Your task to perform on an android device: star an email in the gmail app Image 0: 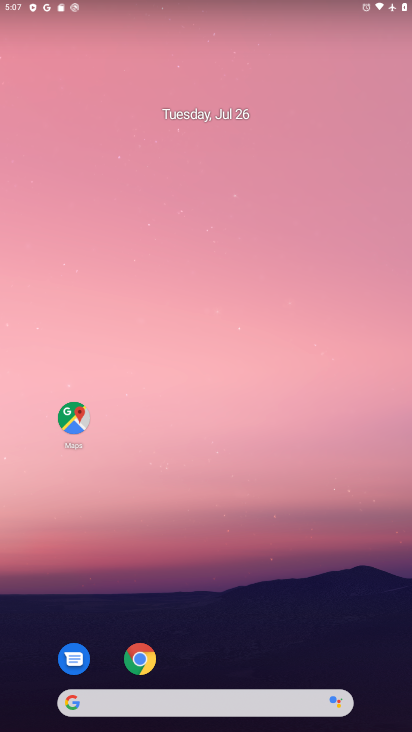
Step 0: drag from (222, 671) to (296, 99)
Your task to perform on an android device: star an email in the gmail app Image 1: 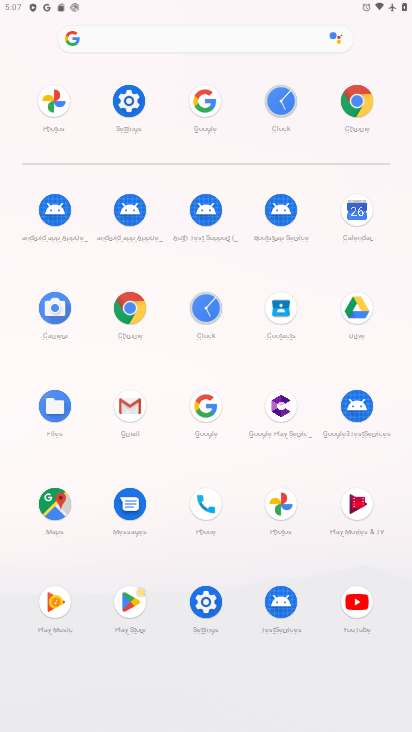
Step 1: click (127, 399)
Your task to perform on an android device: star an email in the gmail app Image 2: 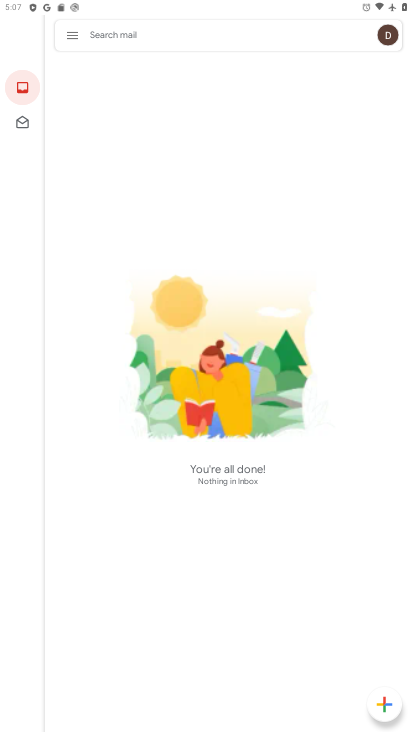
Step 2: task complete